Your task to perform on an android device: change the upload size in google photos Image 0: 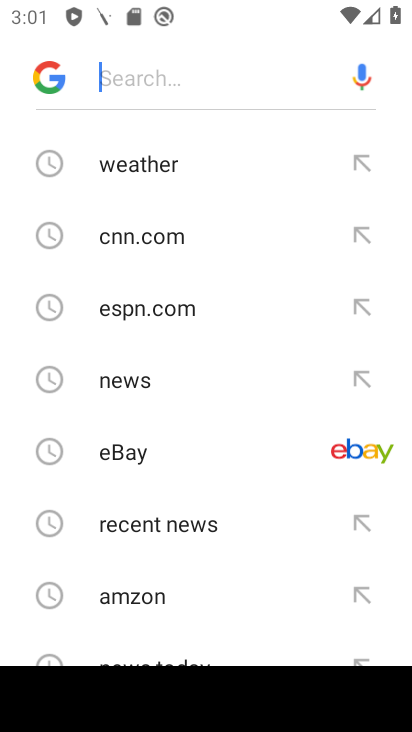
Step 0: press home button
Your task to perform on an android device: change the upload size in google photos Image 1: 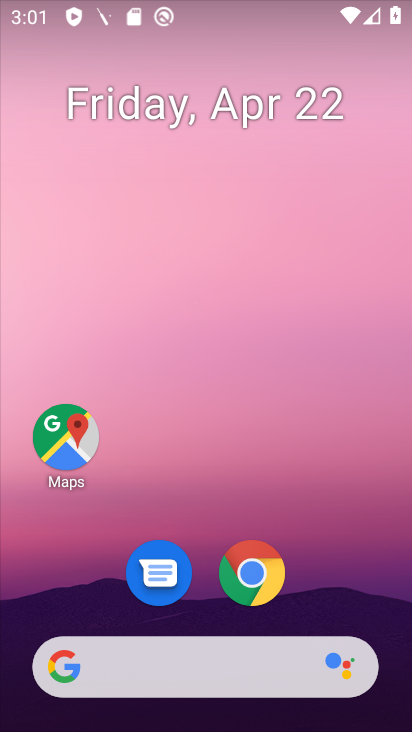
Step 1: drag from (305, 601) to (296, 115)
Your task to perform on an android device: change the upload size in google photos Image 2: 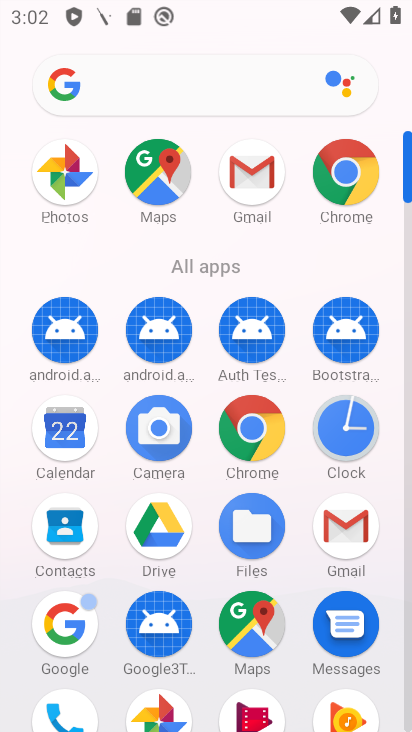
Step 2: click (51, 172)
Your task to perform on an android device: change the upload size in google photos Image 3: 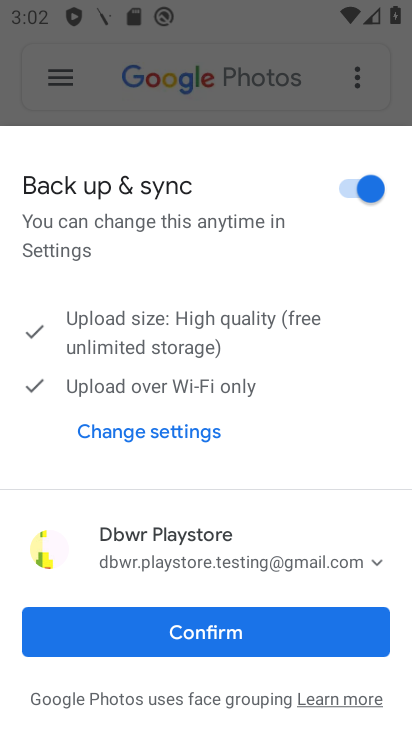
Step 3: click (259, 630)
Your task to perform on an android device: change the upload size in google photos Image 4: 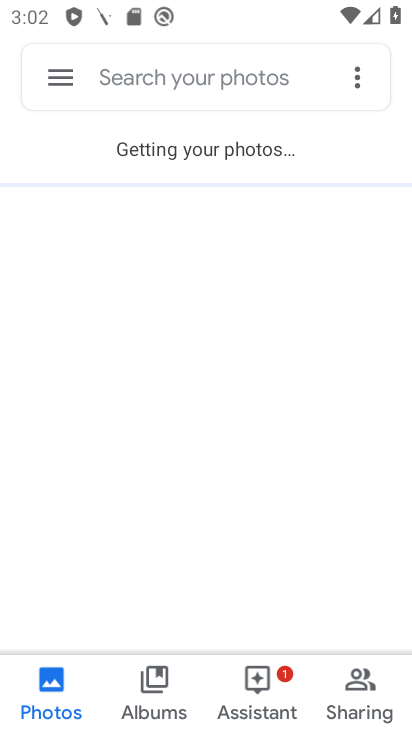
Step 4: click (58, 76)
Your task to perform on an android device: change the upload size in google photos Image 5: 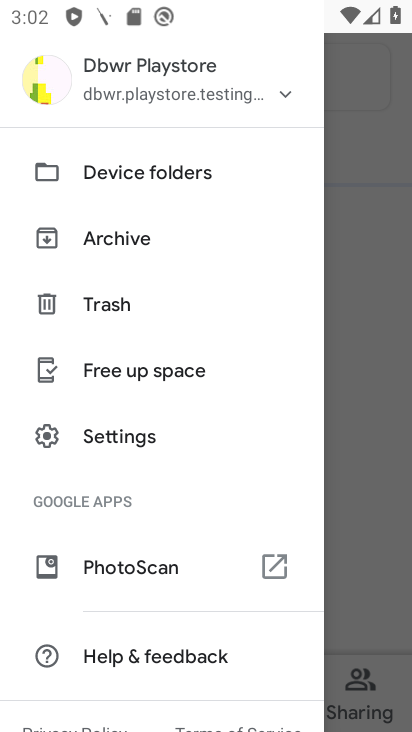
Step 5: click (126, 428)
Your task to perform on an android device: change the upload size in google photos Image 6: 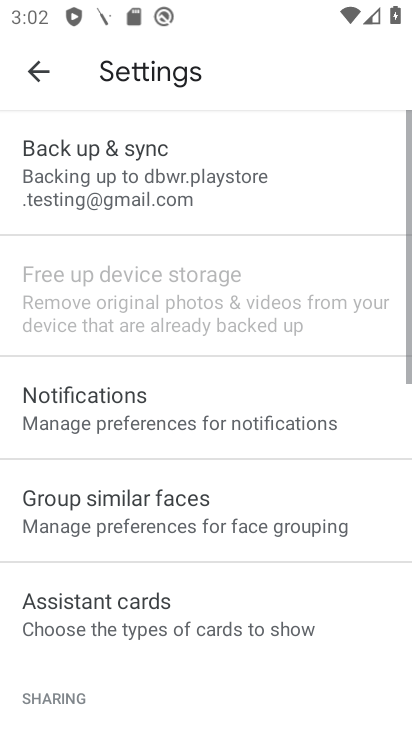
Step 6: click (178, 189)
Your task to perform on an android device: change the upload size in google photos Image 7: 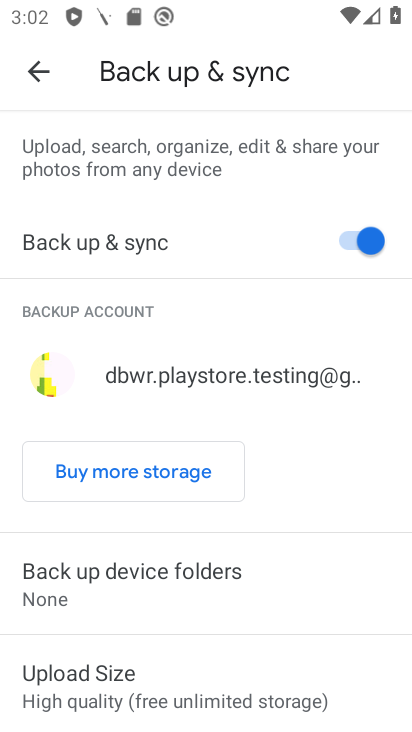
Step 7: click (257, 676)
Your task to perform on an android device: change the upload size in google photos Image 8: 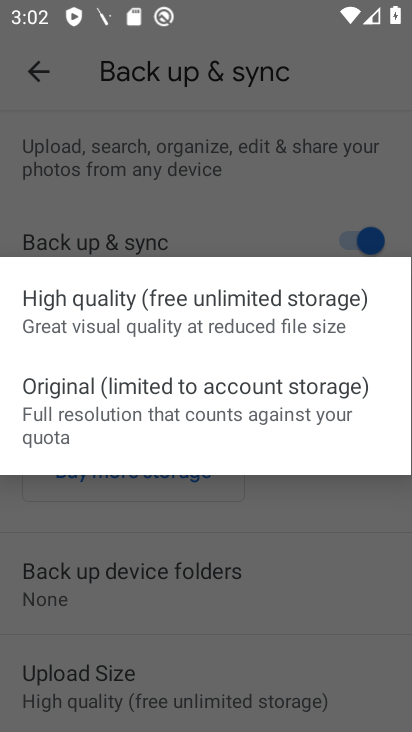
Step 8: click (284, 395)
Your task to perform on an android device: change the upload size in google photos Image 9: 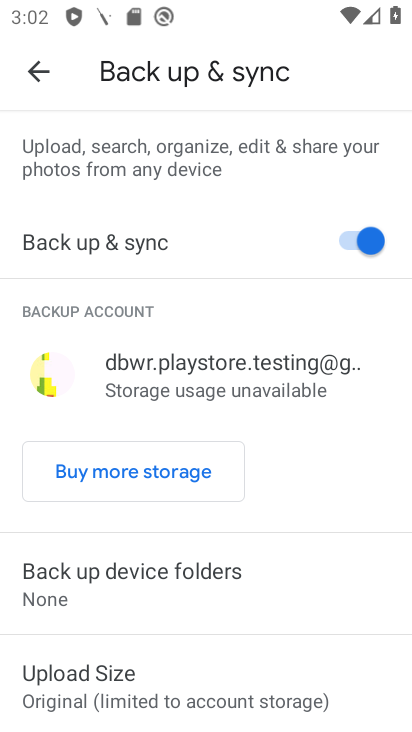
Step 9: task complete